Your task to perform on an android device: Go to accessibility settings Image 0: 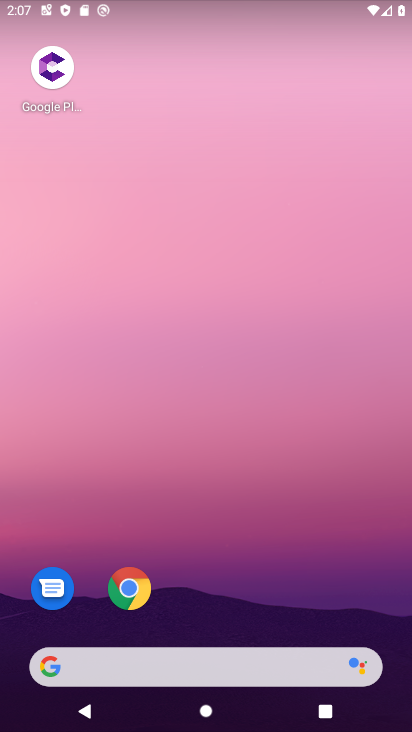
Step 0: drag from (194, 381) to (211, 35)
Your task to perform on an android device: Go to accessibility settings Image 1: 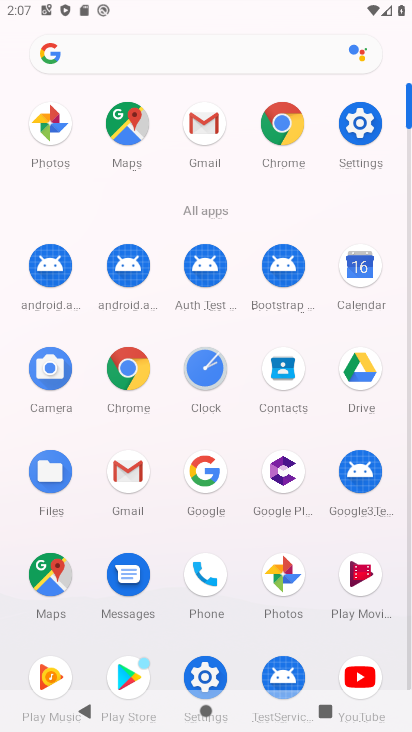
Step 1: click (370, 116)
Your task to perform on an android device: Go to accessibility settings Image 2: 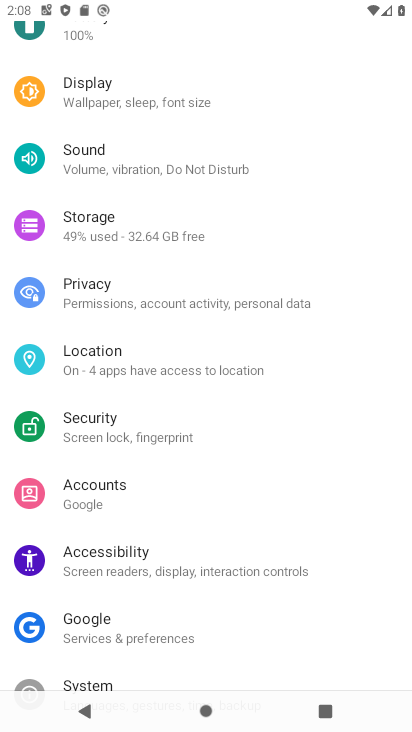
Step 2: drag from (307, 245) to (320, 166)
Your task to perform on an android device: Go to accessibility settings Image 3: 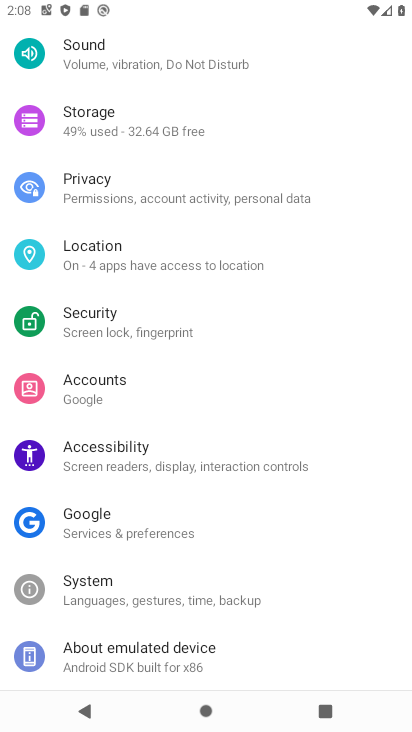
Step 3: click (224, 452)
Your task to perform on an android device: Go to accessibility settings Image 4: 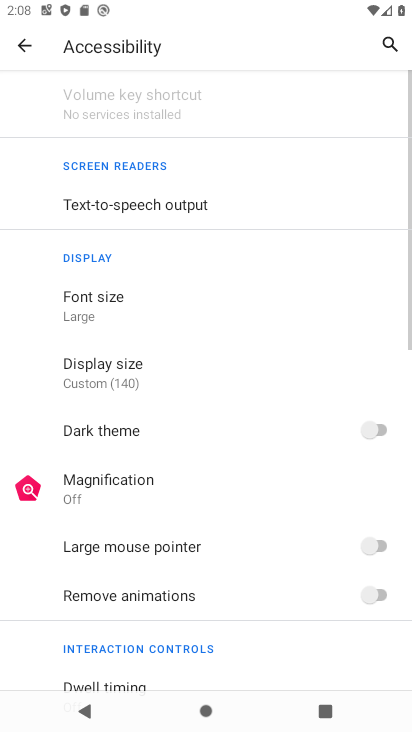
Step 4: task complete